Your task to perform on an android device: toggle improve location accuracy Image 0: 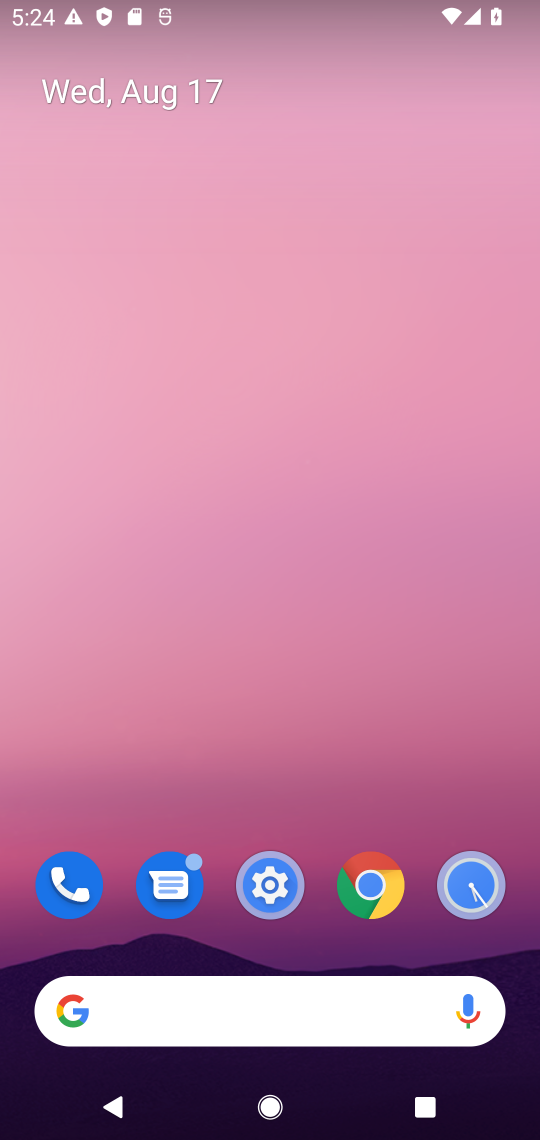
Step 0: drag from (330, 600) to (357, 92)
Your task to perform on an android device: toggle improve location accuracy Image 1: 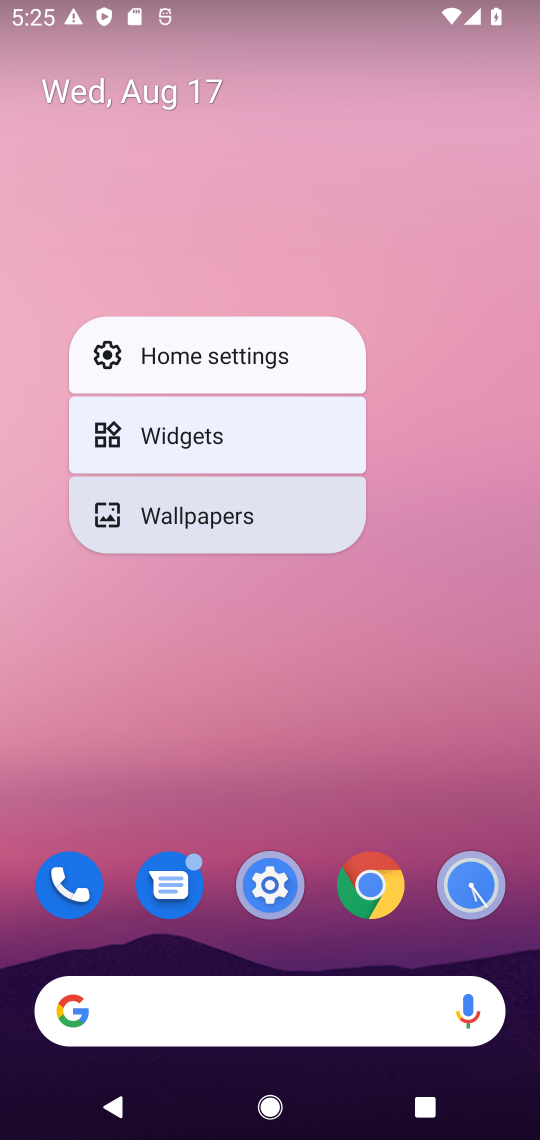
Step 1: click (391, 668)
Your task to perform on an android device: toggle improve location accuracy Image 2: 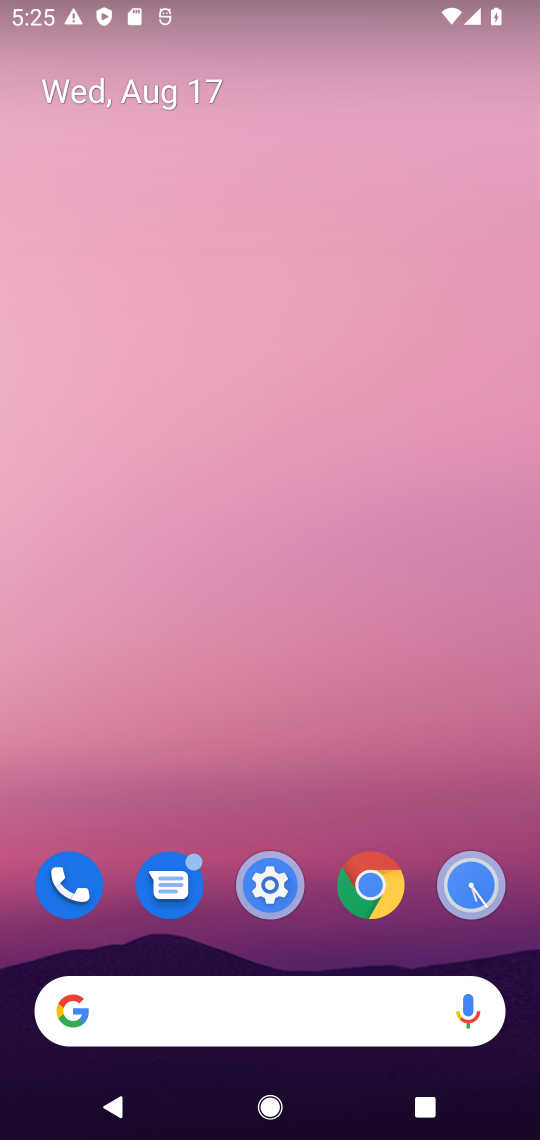
Step 2: drag from (323, 824) to (362, 144)
Your task to perform on an android device: toggle improve location accuracy Image 3: 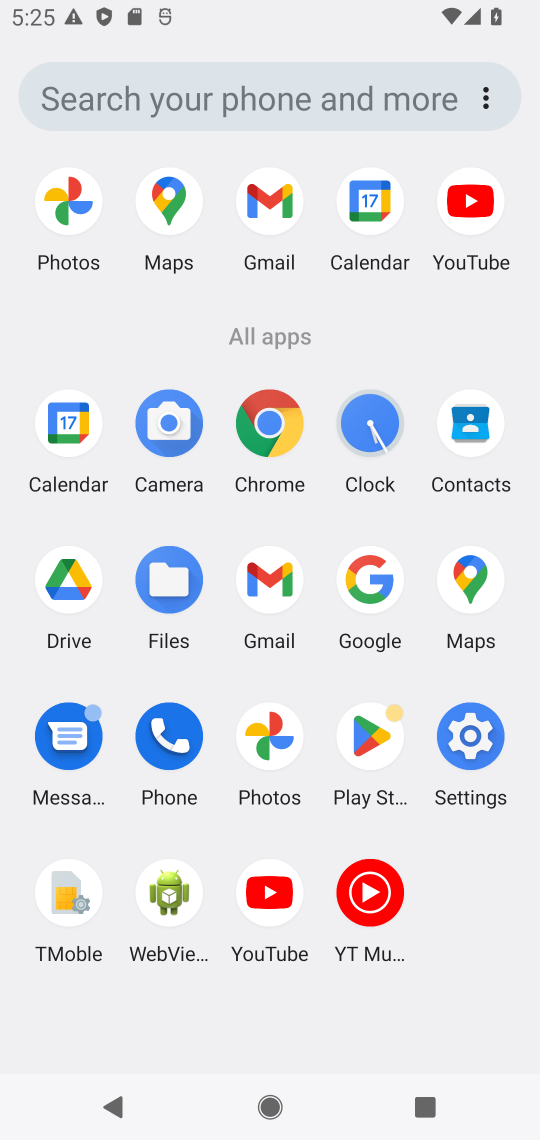
Step 3: click (475, 733)
Your task to perform on an android device: toggle improve location accuracy Image 4: 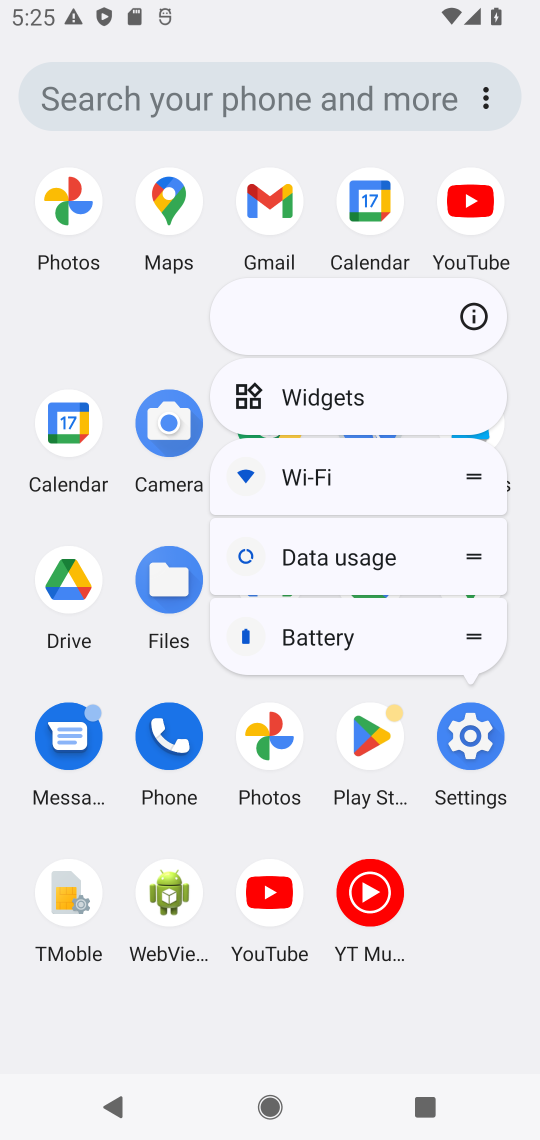
Step 4: click (475, 733)
Your task to perform on an android device: toggle improve location accuracy Image 5: 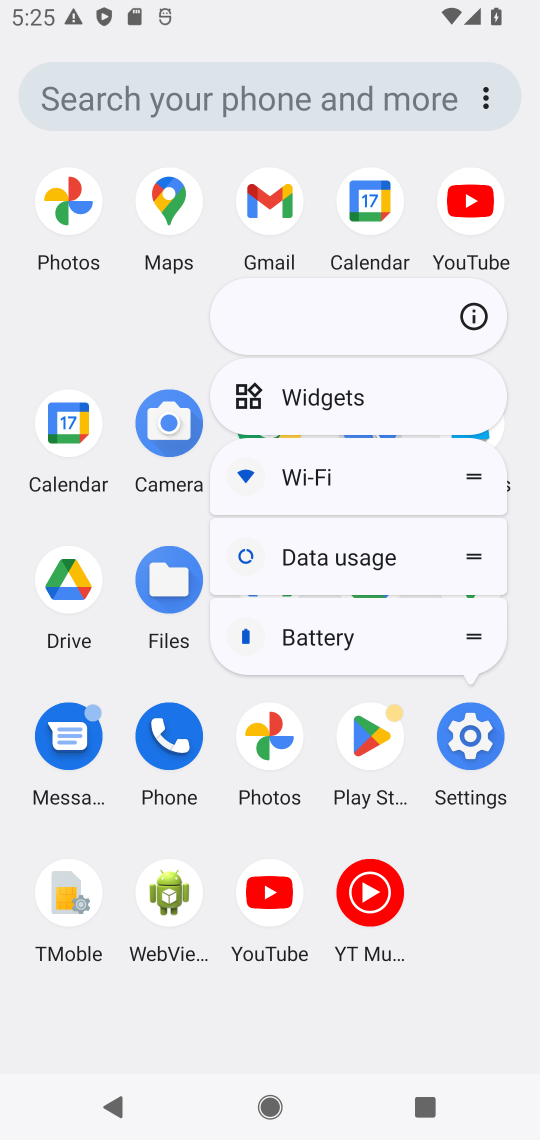
Step 5: click (474, 738)
Your task to perform on an android device: toggle improve location accuracy Image 6: 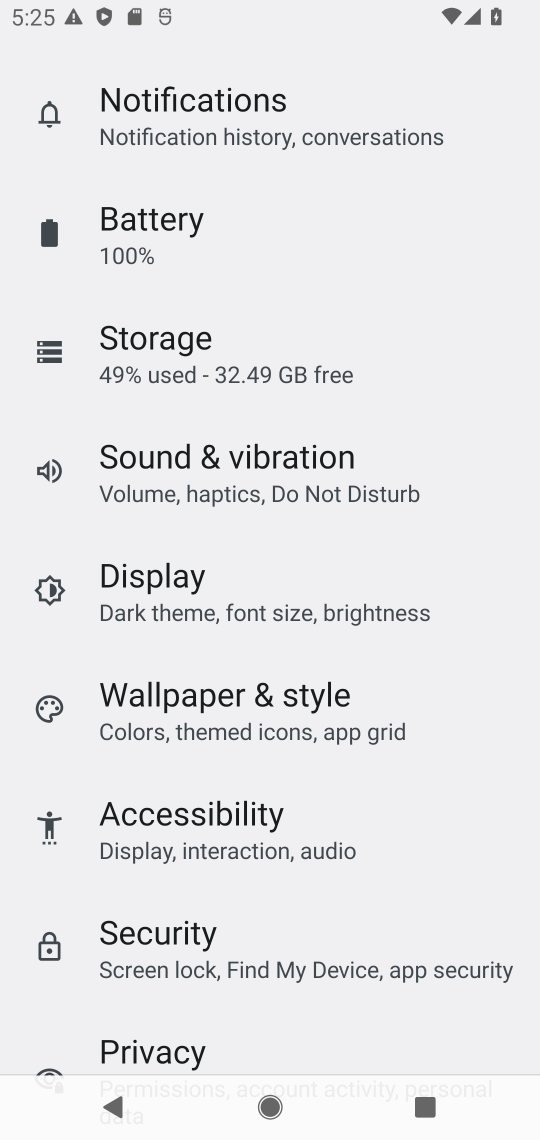
Step 6: drag from (278, 813) to (380, 289)
Your task to perform on an android device: toggle improve location accuracy Image 7: 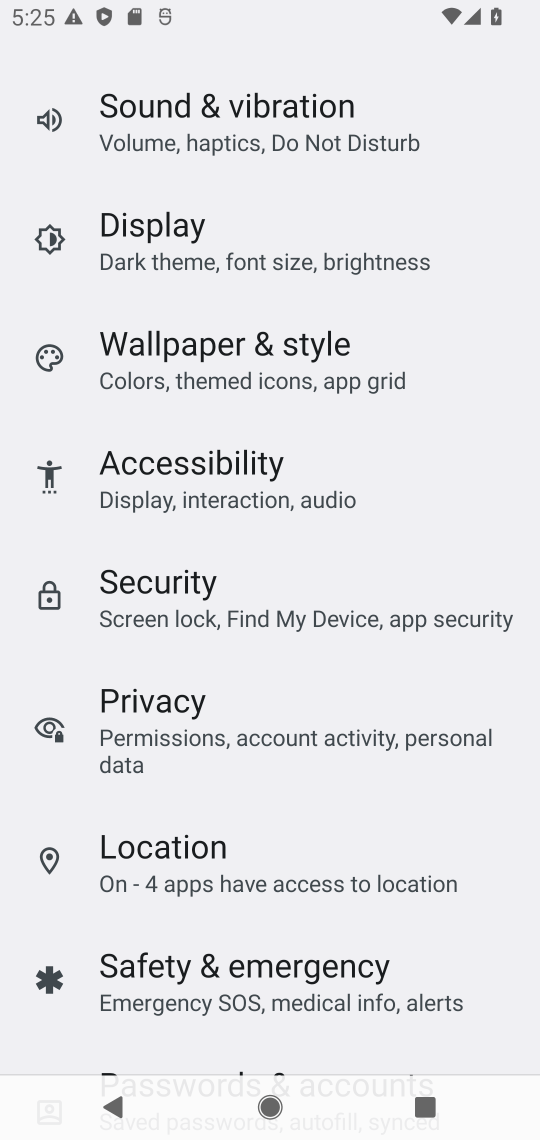
Step 7: click (161, 877)
Your task to perform on an android device: toggle improve location accuracy Image 8: 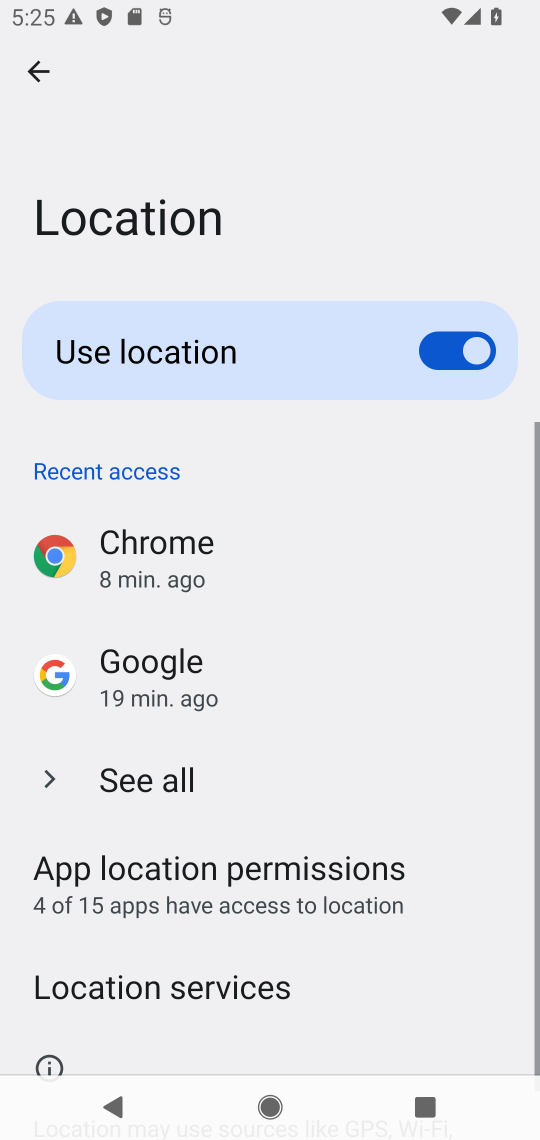
Step 8: drag from (384, 997) to (398, 369)
Your task to perform on an android device: toggle improve location accuracy Image 9: 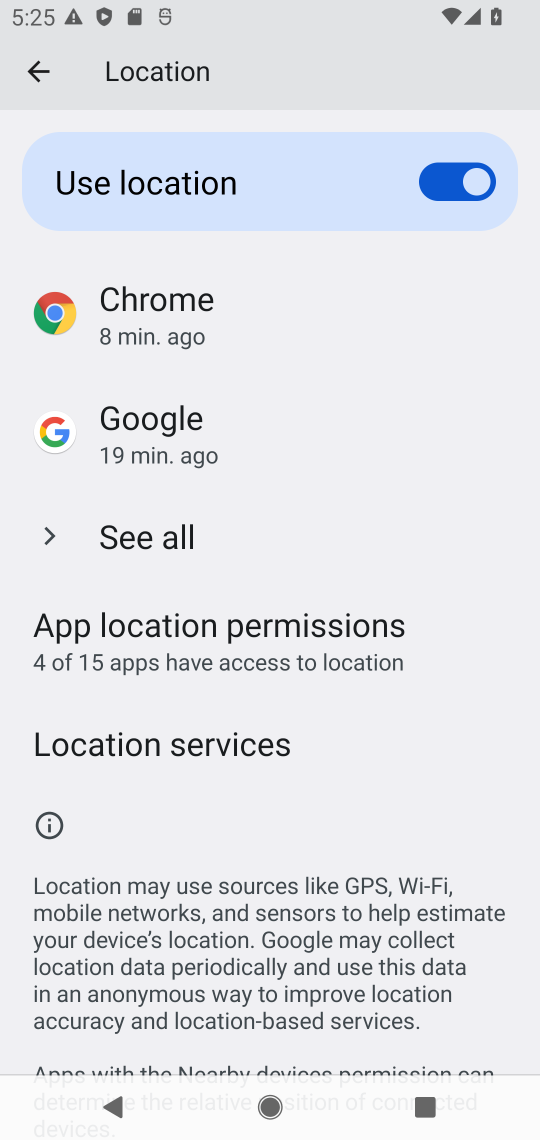
Step 9: click (203, 752)
Your task to perform on an android device: toggle improve location accuracy Image 10: 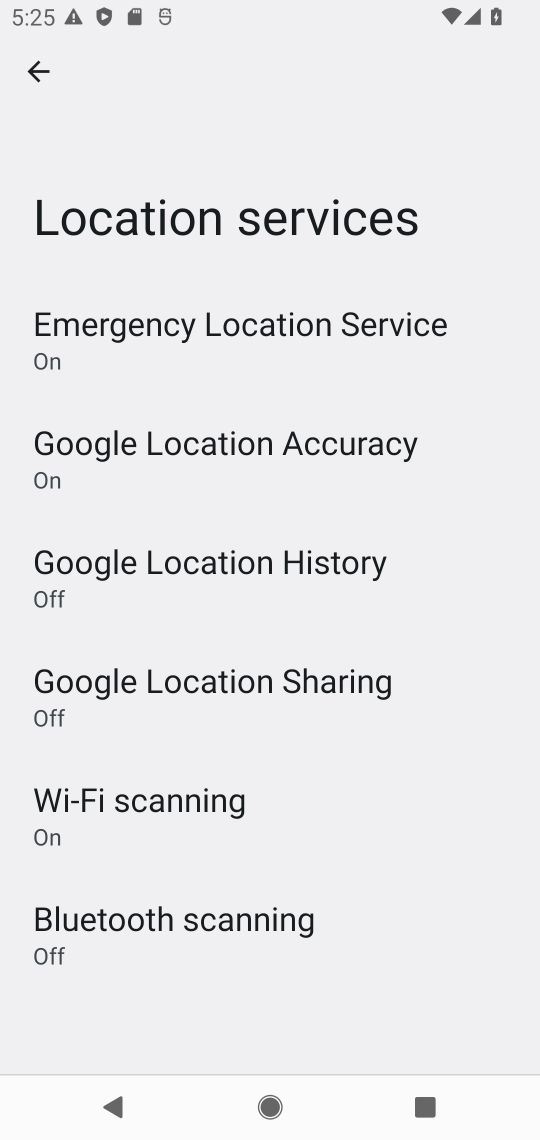
Step 10: click (312, 450)
Your task to perform on an android device: toggle improve location accuracy Image 11: 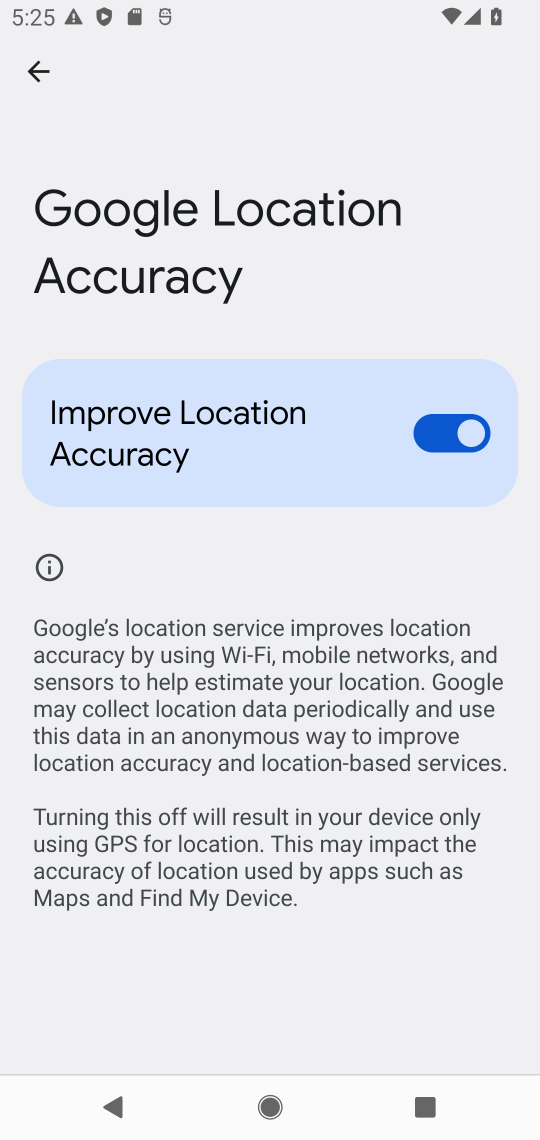
Step 11: click (456, 414)
Your task to perform on an android device: toggle improve location accuracy Image 12: 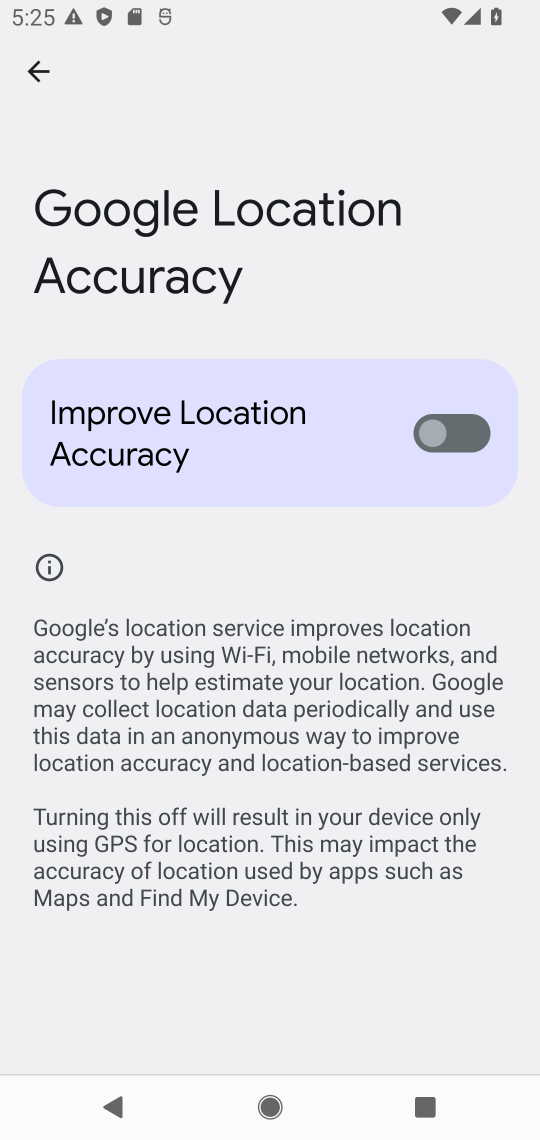
Step 12: task complete